Your task to perform on an android device: check storage Image 0: 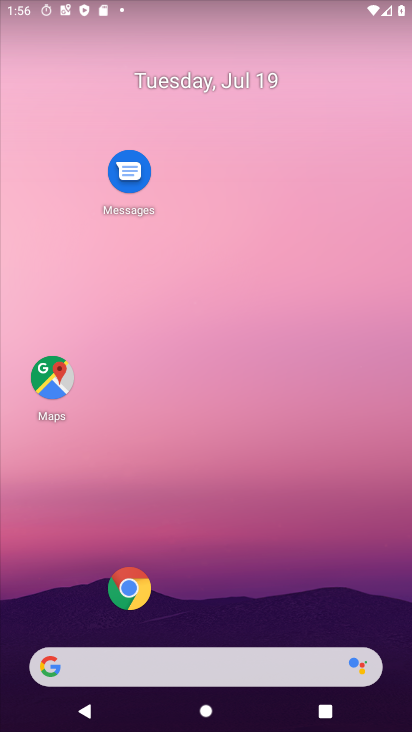
Step 0: drag from (53, 625) to (266, 1)
Your task to perform on an android device: check storage Image 1: 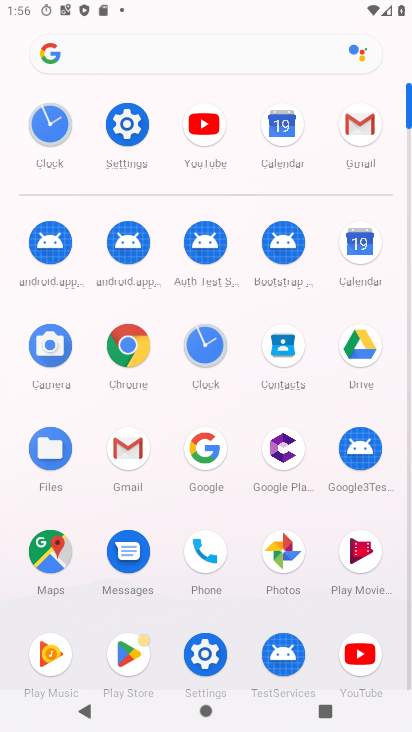
Step 1: click (214, 652)
Your task to perform on an android device: check storage Image 2: 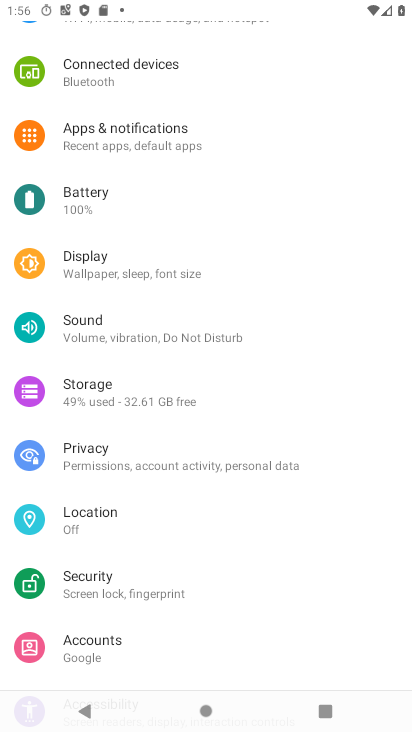
Step 2: click (67, 391)
Your task to perform on an android device: check storage Image 3: 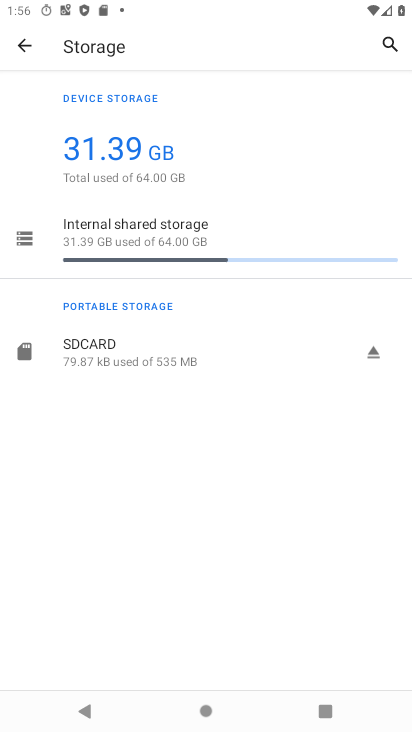
Step 3: task complete